Your task to perform on an android device: Open wifi settings Image 0: 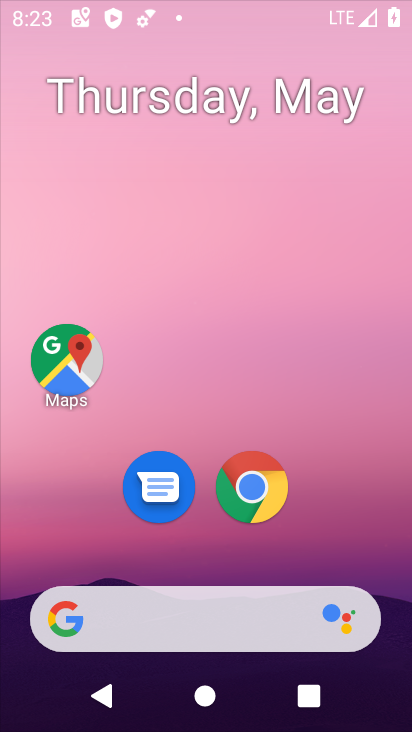
Step 0: drag from (250, 491) to (269, 7)
Your task to perform on an android device: Open wifi settings Image 1: 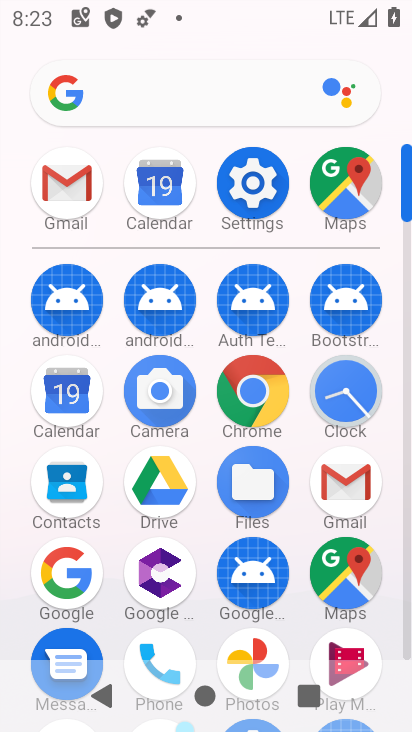
Step 1: click (248, 216)
Your task to perform on an android device: Open wifi settings Image 2: 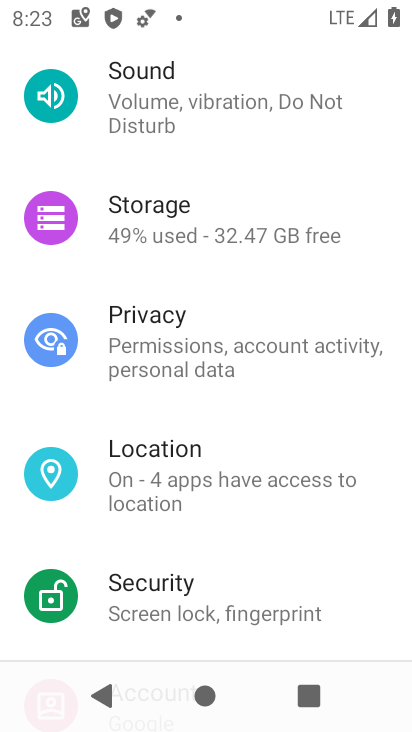
Step 2: drag from (235, 84) to (306, 619)
Your task to perform on an android device: Open wifi settings Image 3: 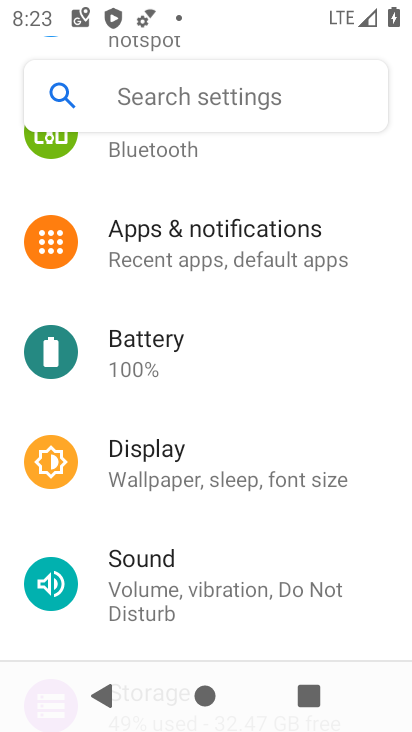
Step 3: drag from (213, 333) to (392, 247)
Your task to perform on an android device: Open wifi settings Image 4: 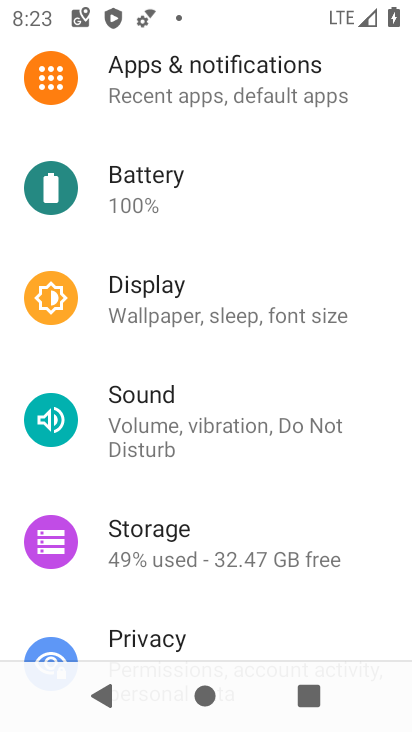
Step 4: drag from (196, 215) to (300, 647)
Your task to perform on an android device: Open wifi settings Image 5: 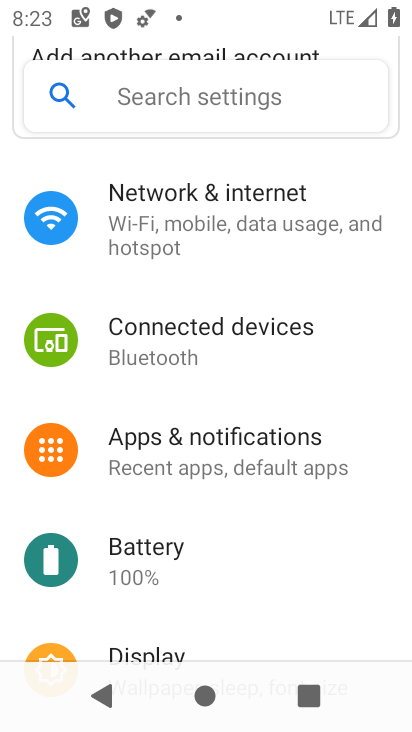
Step 5: click (174, 235)
Your task to perform on an android device: Open wifi settings Image 6: 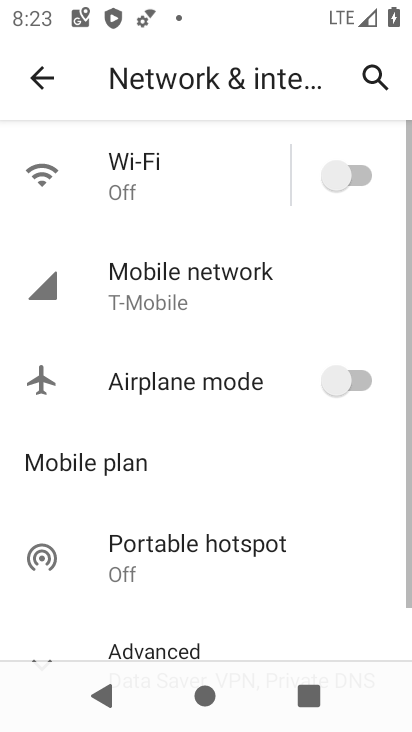
Step 6: click (148, 172)
Your task to perform on an android device: Open wifi settings Image 7: 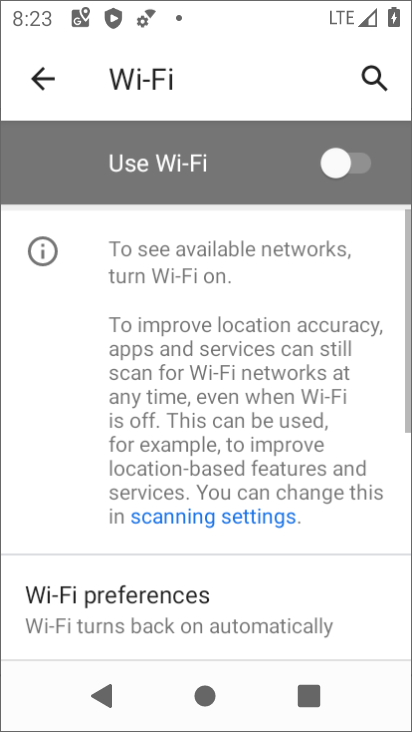
Step 7: task complete